Your task to perform on an android device: change alarm snooze length Image 0: 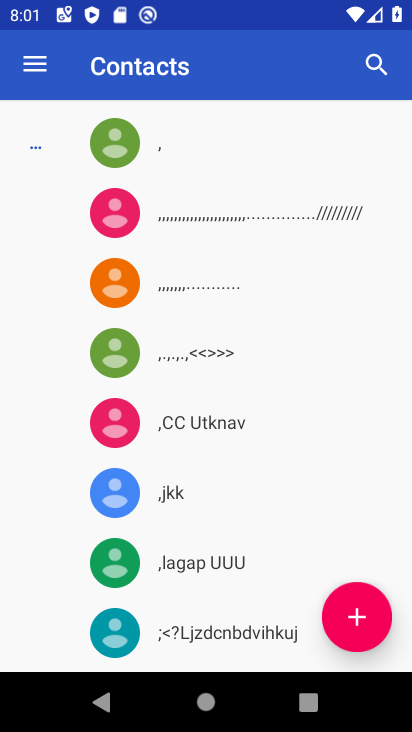
Step 0: press home button
Your task to perform on an android device: change alarm snooze length Image 1: 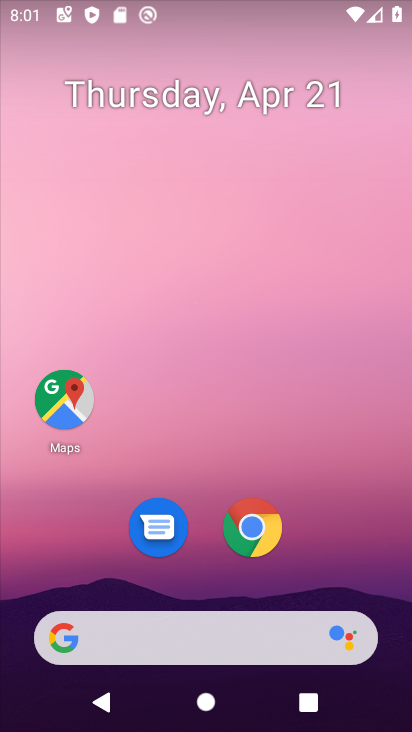
Step 1: drag from (315, 557) to (339, 145)
Your task to perform on an android device: change alarm snooze length Image 2: 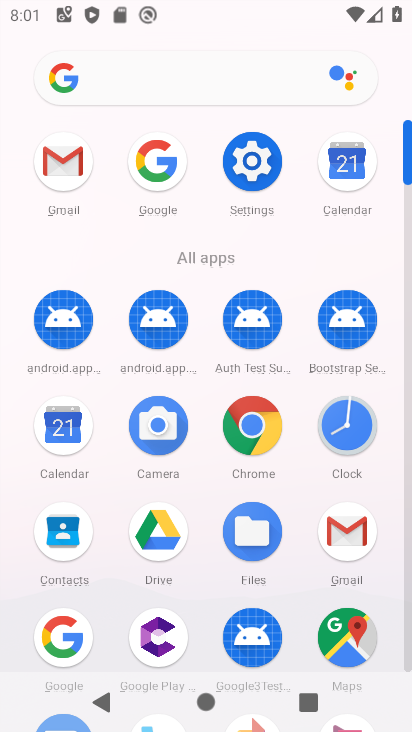
Step 2: click (356, 439)
Your task to perform on an android device: change alarm snooze length Image 3: 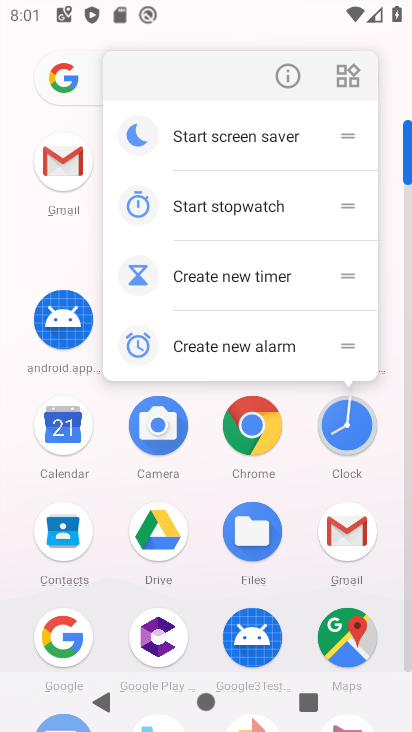
Step 3: click (356, 457)
Your task to perform on an android device: change alarm snooze length Image 4: 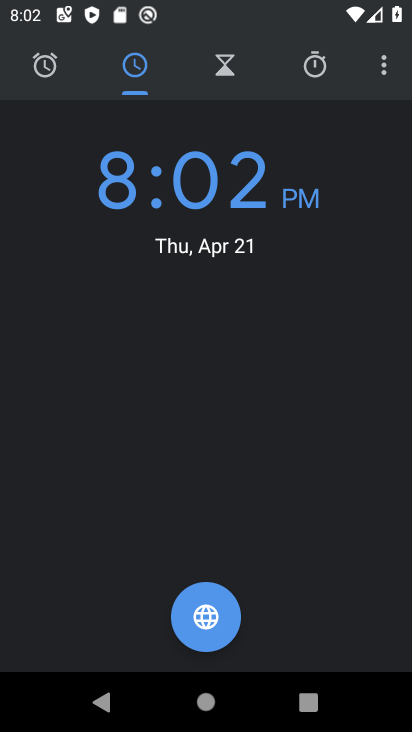
Step 4: click (391, 72)
Your task to perform on an android device: change alarm snooze length Image 5: 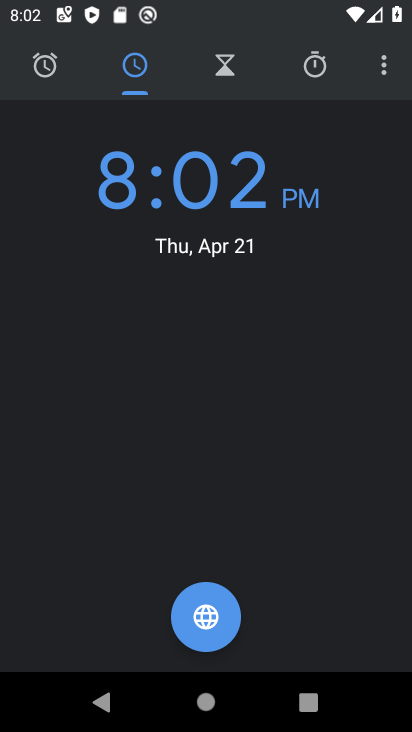
Step 5: click (390, 72)
Your task to perform on an android device: change alarm snooze length Image 6: 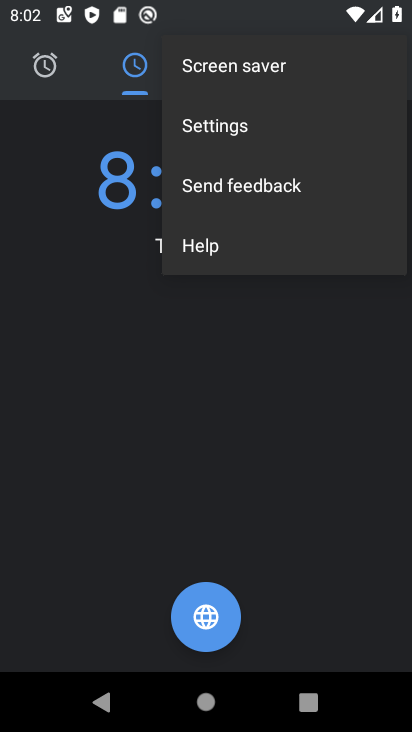
Step 6: click (237, 114)
Your task to perform on an android device: change alarm snooze length Image 7: 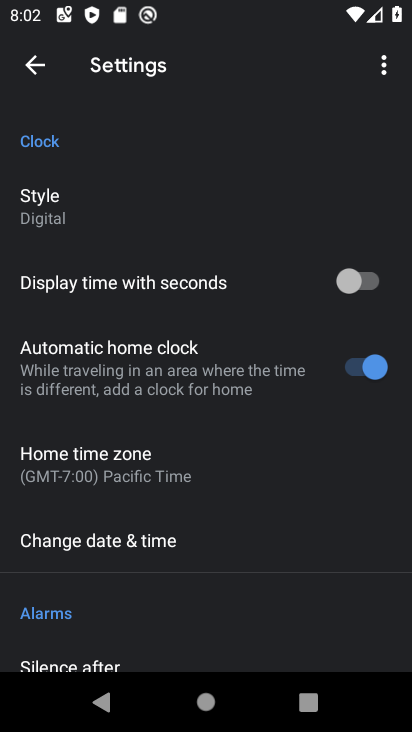
Step 7: drag from (279, 544) to (323, 240)
Your task to perform on an android device: change alarm snooze length Image 8: 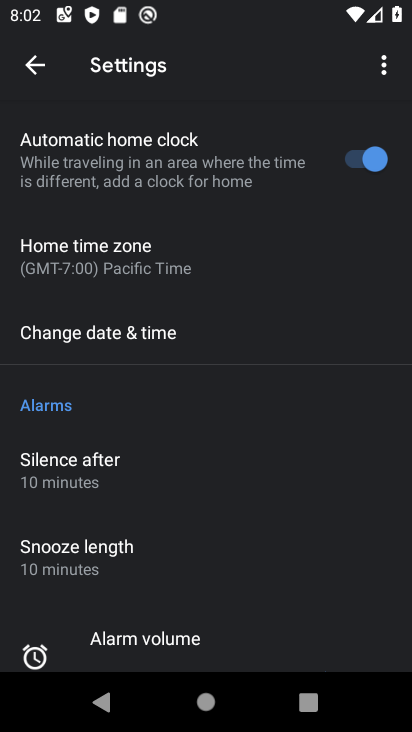
Step 8: drag from (284, 507) to (338, 324)
Your task to perform on an android device: change alarm snooze length Image 9: 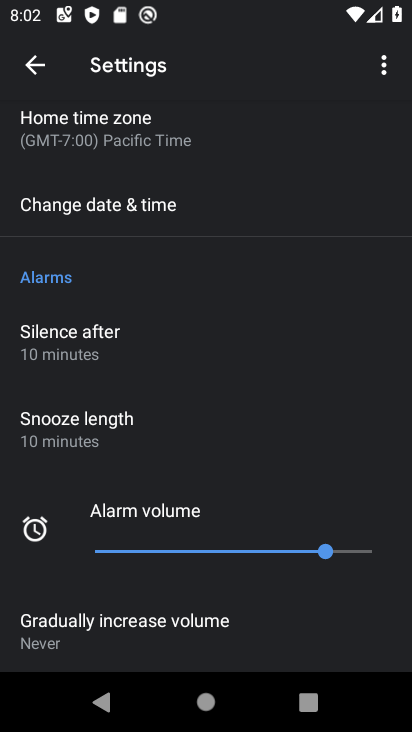
Step 9: drag from (307, 393) to (372, 251)
Your task to perform on an android device: change alarm snooze length Image 10: 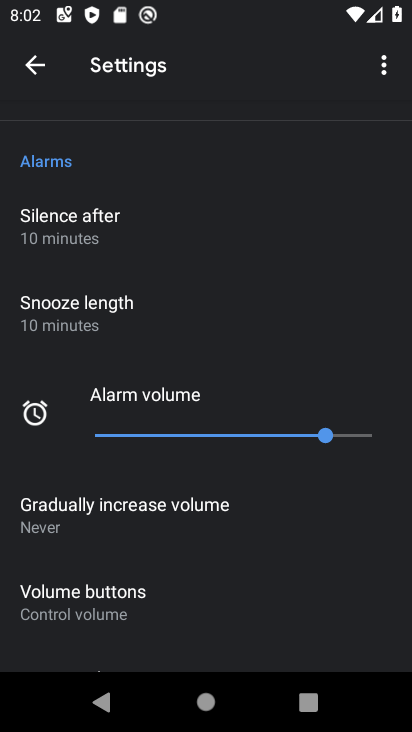
Step 10: click (207, 297)
Your task to perform on an android device: change alarm snooze length Image 11: 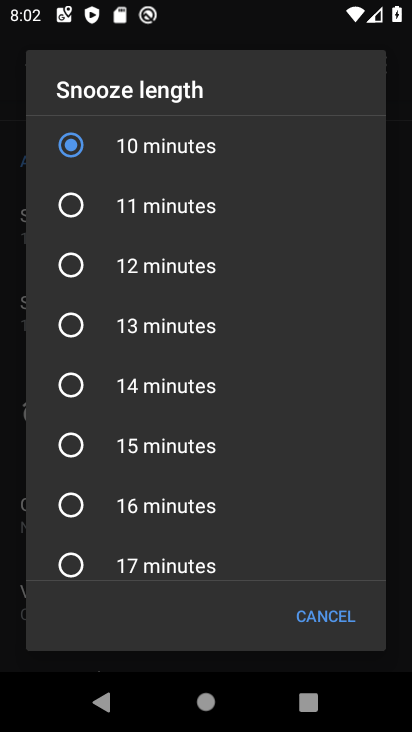
Step 11: click (85, 275)
Your task to perform on an android device: change alarm snooze length Image 12: 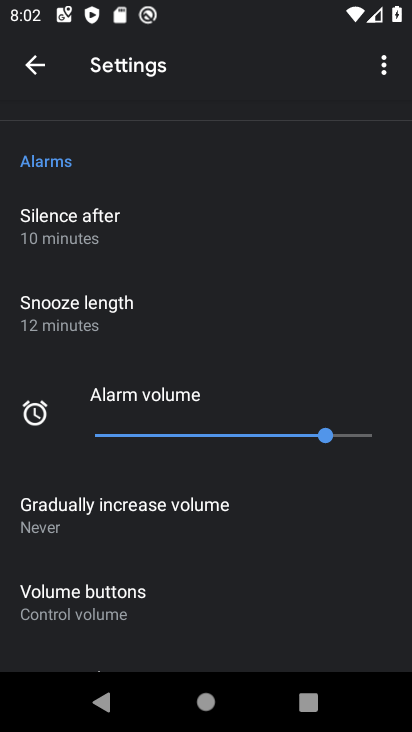
Step 12: task complete